Your task to perform on an android device: Open maps Image 0: 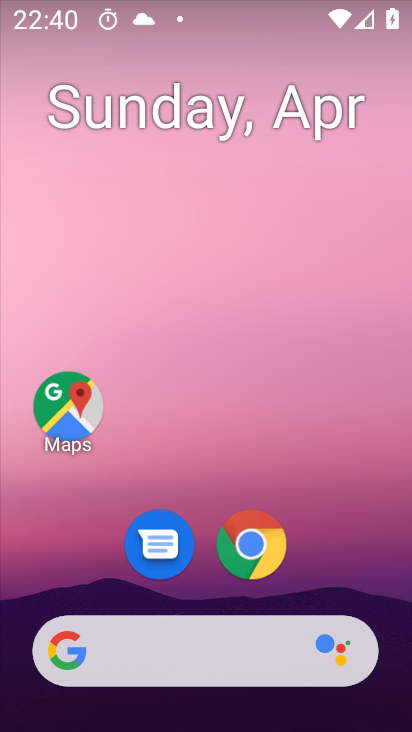
Step 0: drag from (344, 546) to (342, 202)
Your task to perform on an android device: Open maps Image 1: 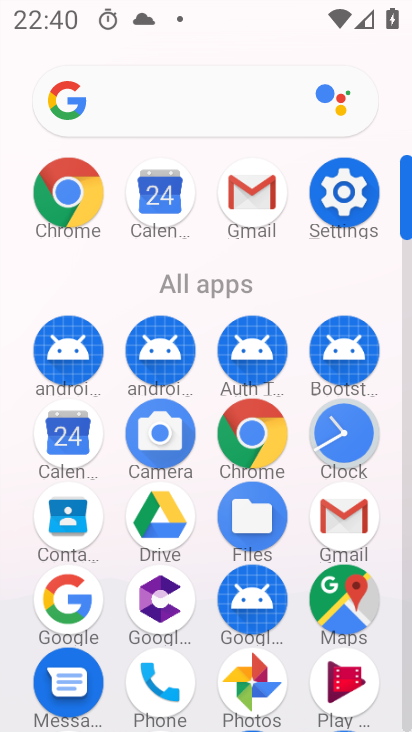
Step 1: click (347, 602)
Your task to perform on an android device: Open maps Image 2: 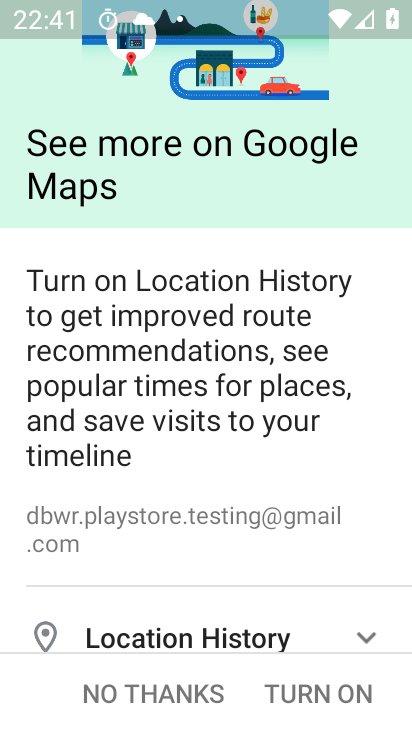
Step 2: click (110, 676)
Your task to perform on an android device: Open maps Image 3: 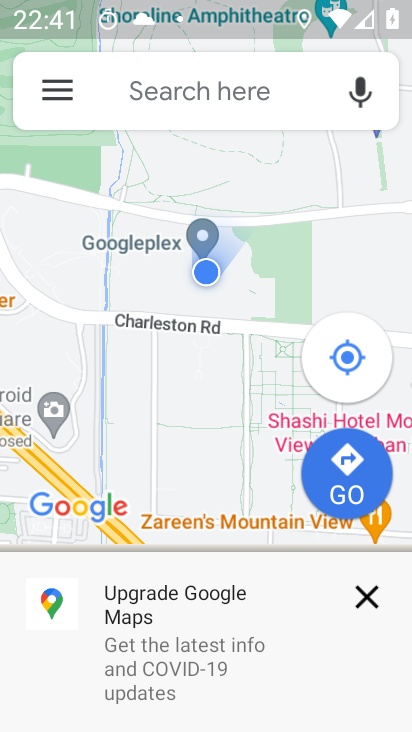
Step 3: task complete